Your task to perform on an android device: turn off notifications in google photos Image 0: 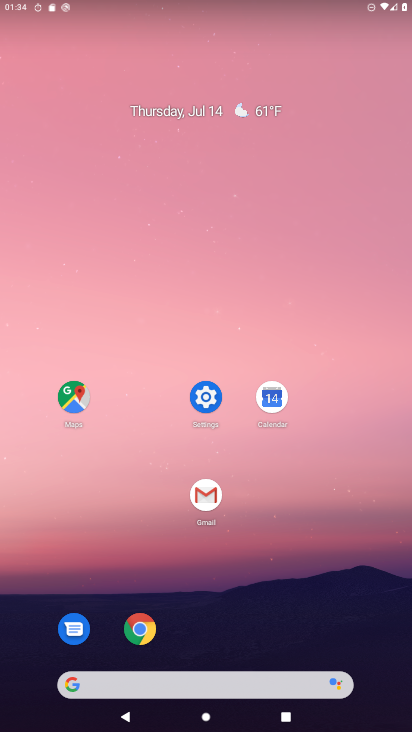
Step 0: drag from (387, 702) to (323, 95)
Your task to perform on an android device: turn off notifications in google photos Image 1: 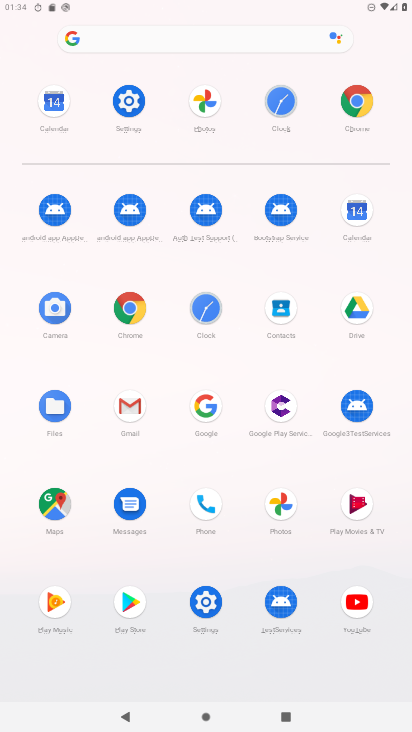
Step 1: click (279, 504)
Your task to perform on an android device: turn off notifications in google photos Image 2: 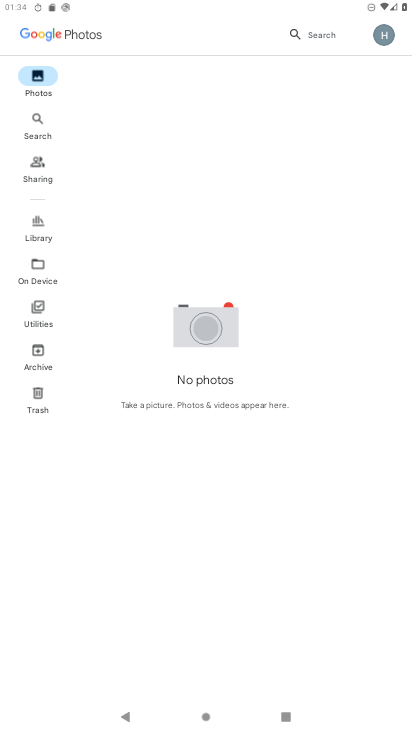
Step 2: task complete